Your task to perform on an android device: Add dell xps to the cart on target Image 0: 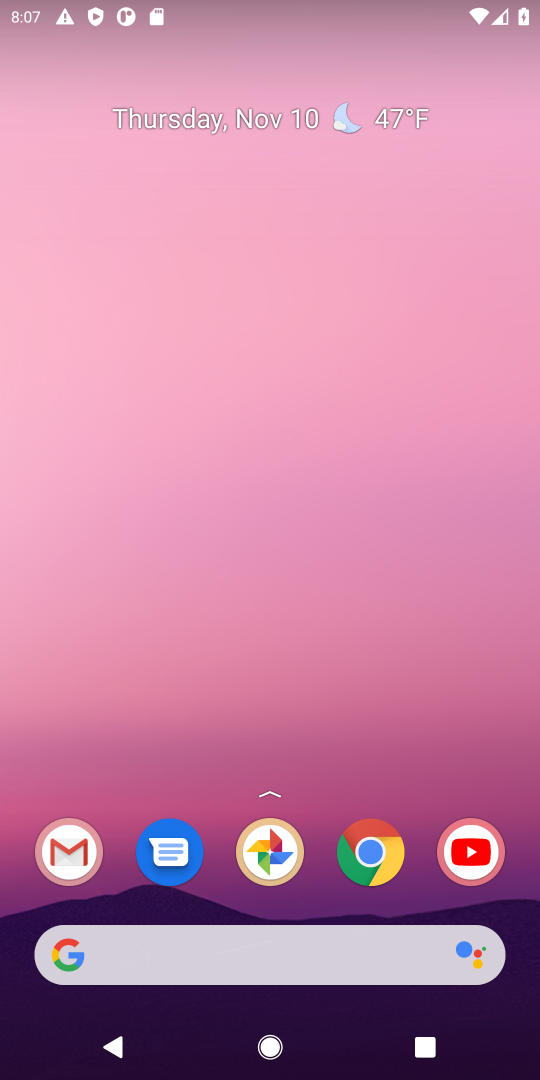
Step 0: click (373, 850)
Your task to perform on an android device: Add dell xps to the cart on target Image 1: 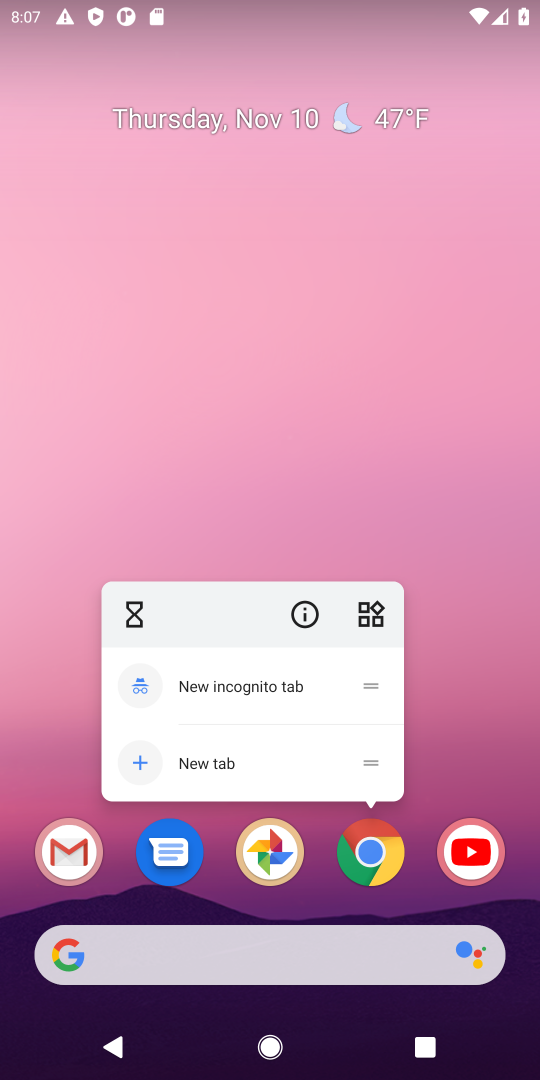
Step 1: click (372, 852)
Your task to perform on an android device: Add dell xps to the cart on target Image 2: 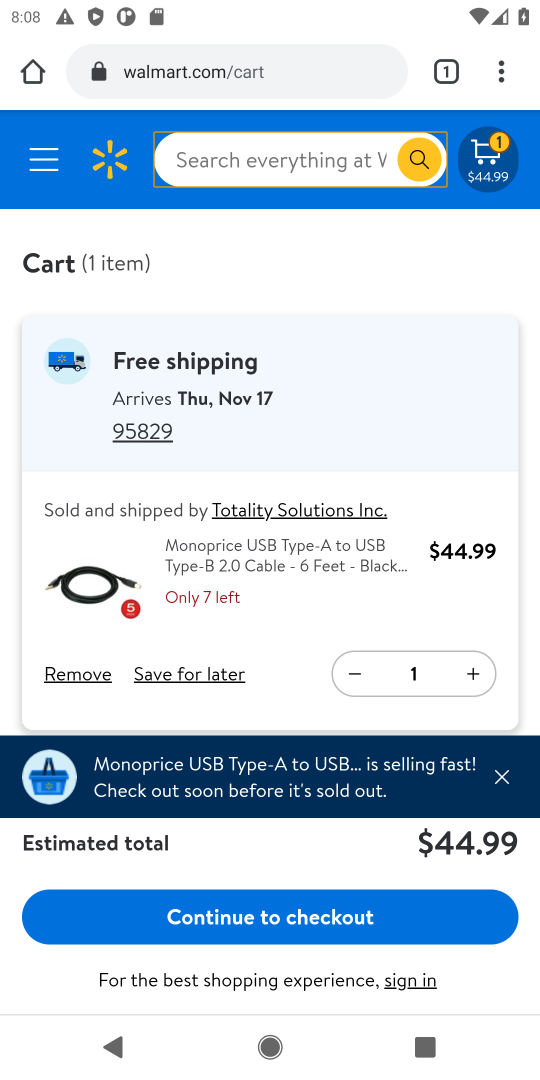
Step 2: click (304, 58)
Your task to perform on an android device: Add dell xps to the cart on target Image 3: 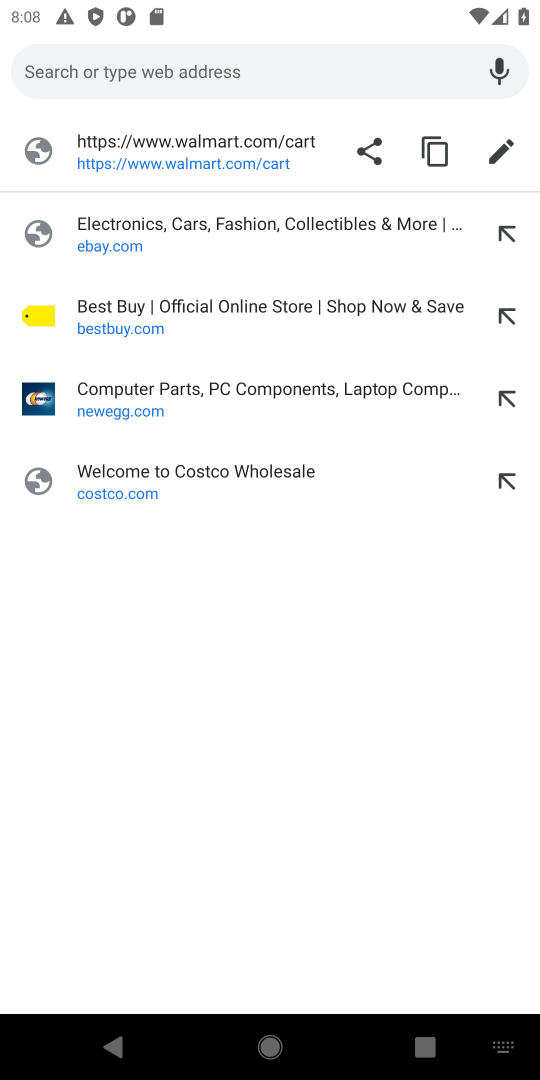
Step 3: type " target"
Your task to perform on an android device: Add dell xps to the cart on target Image 4: 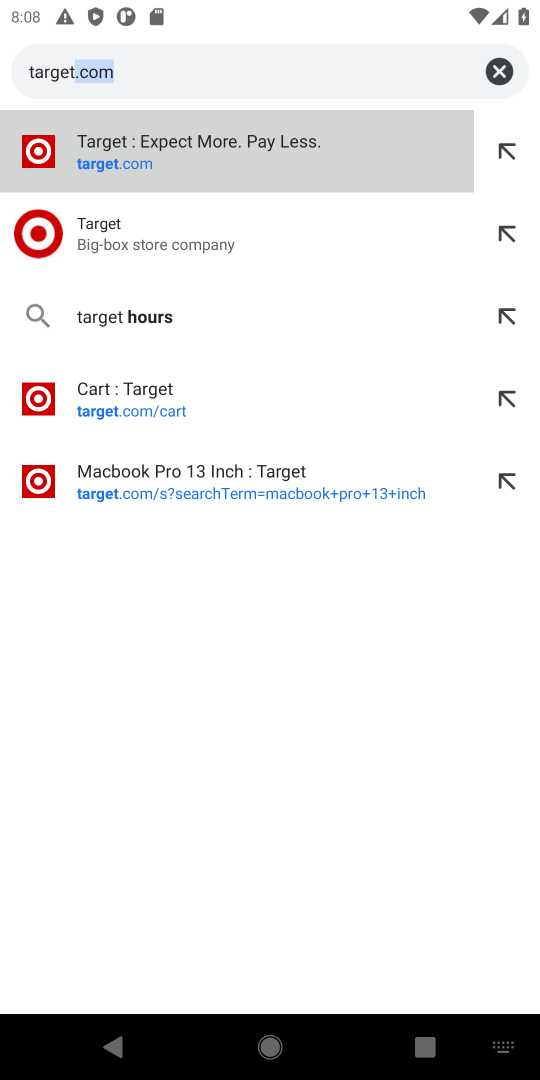
Step 4: press enter
Your task to perform on an android device: Add dell xps to the cart on target Image 5: 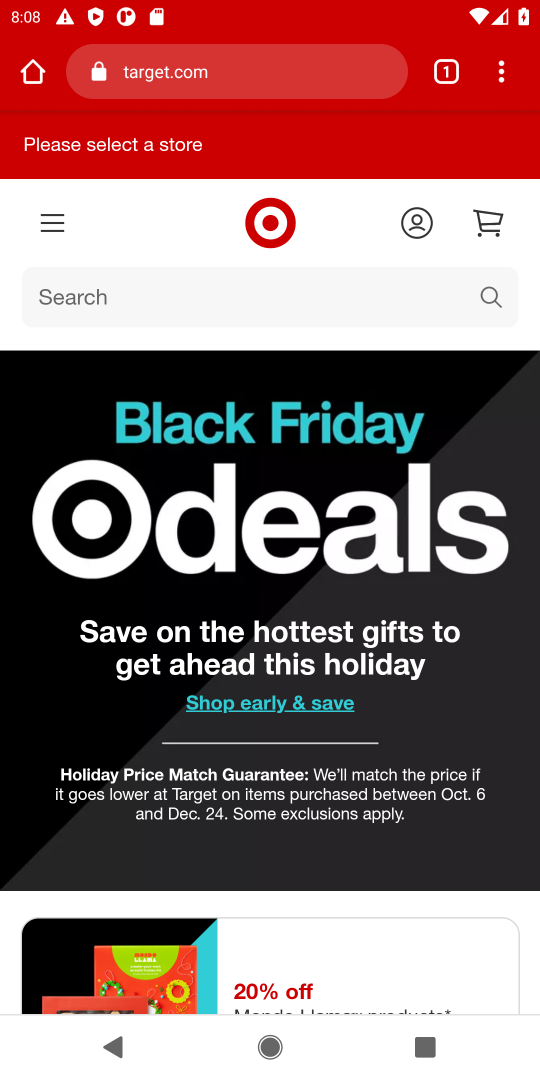
Step 5: click (230, 275)
Your task to perform on an android device: Add dell xps to the cart on target Image 6: 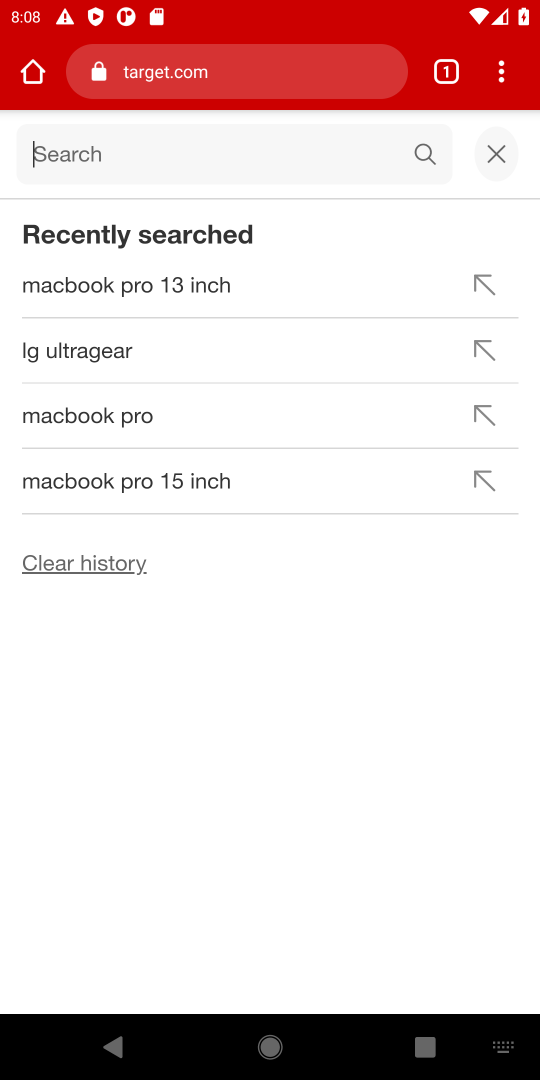
Step 6: type " dell xps"
Your task to perform on an android device: Add dell xps to the cart on target Image 7: 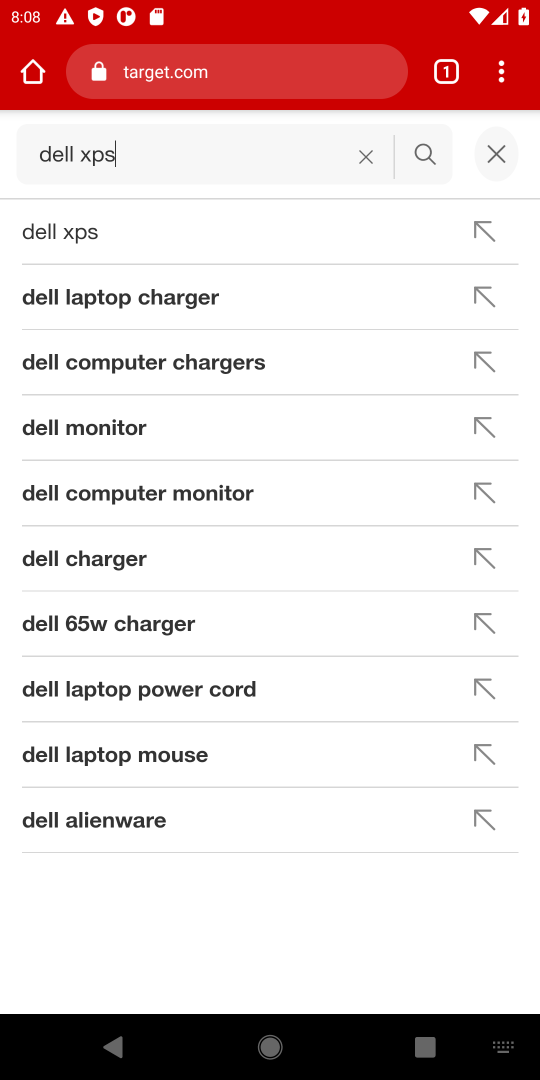
Step 7: press enter
Your task to perform on an android device: Add dell xps to the cart on target Image 8: 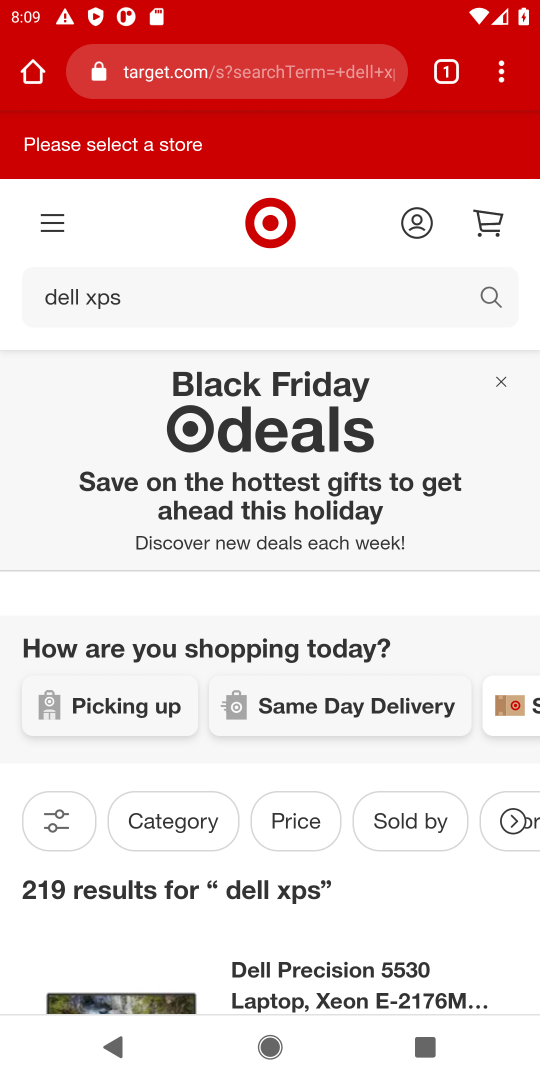
Step 8: task complete